Your task to perform on an android device: toggle wifi Image 0: 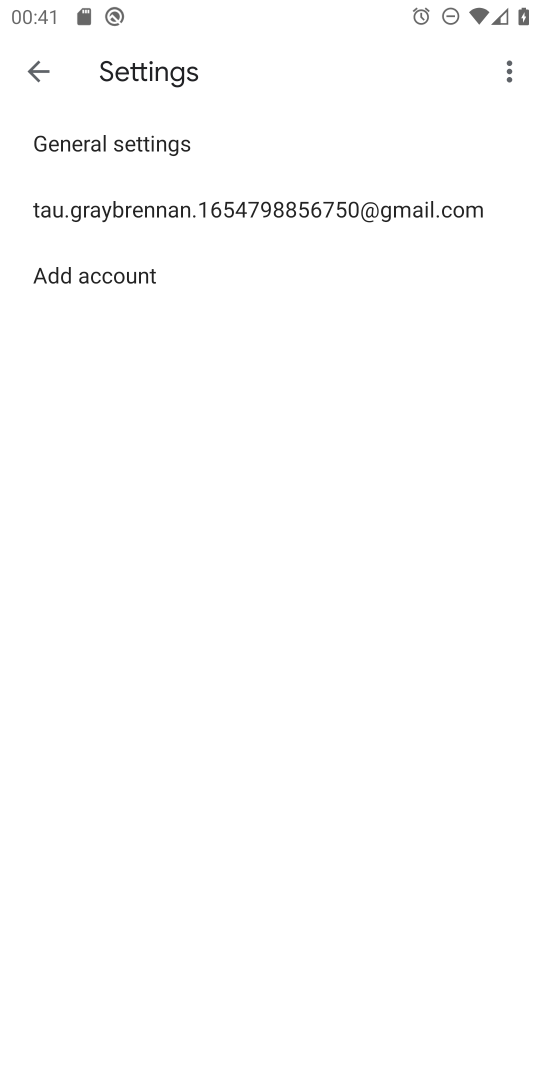
Step 0: press home button
Your task to perform on an android device: toggle wifi Image 1: 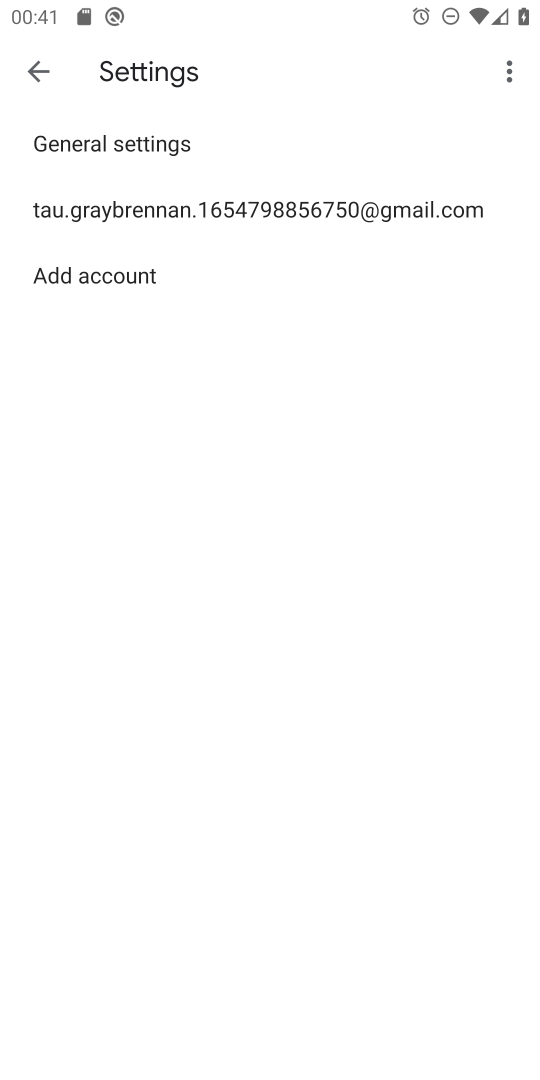
Step 1: press home button
Your task to perform on an android device: toggle wifi Image 2: 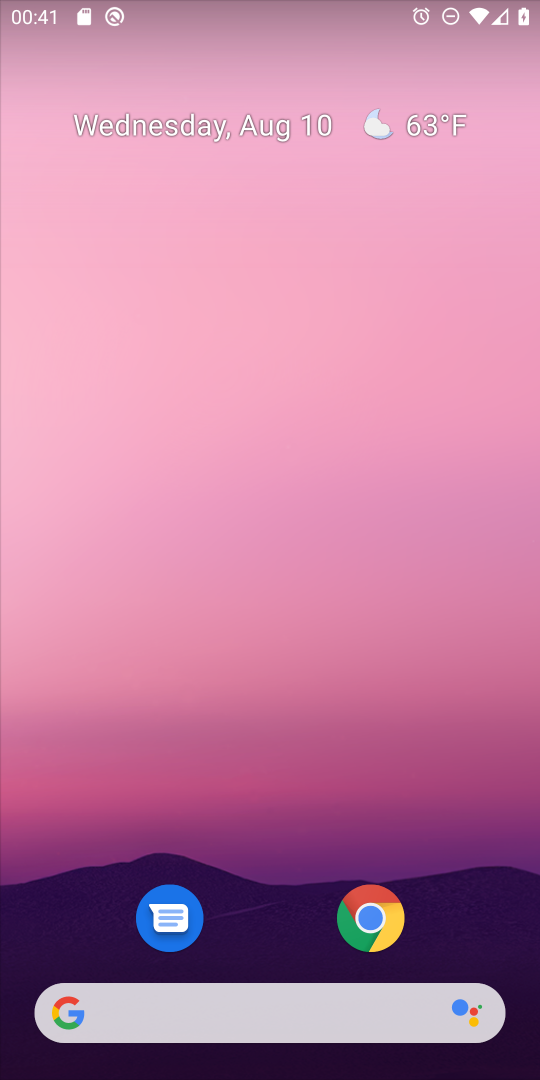
Step 2: drag from (253, 653) to (317, 108)
Your task to perform on an android device: toggle wifi Image 3: 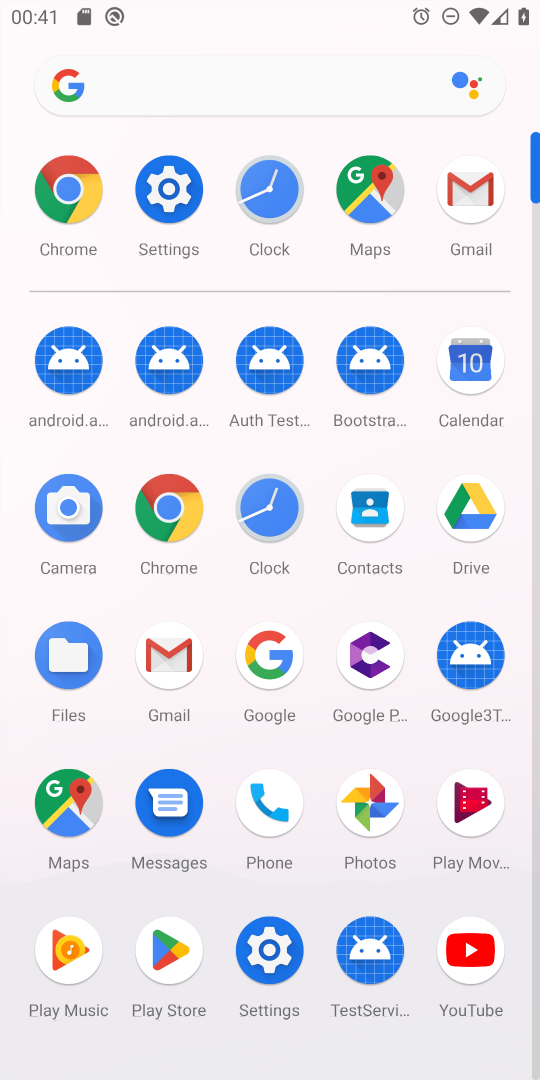
Step 3: click (273, 963)
Your task to perform on an android device: toggle wifi Image 4: 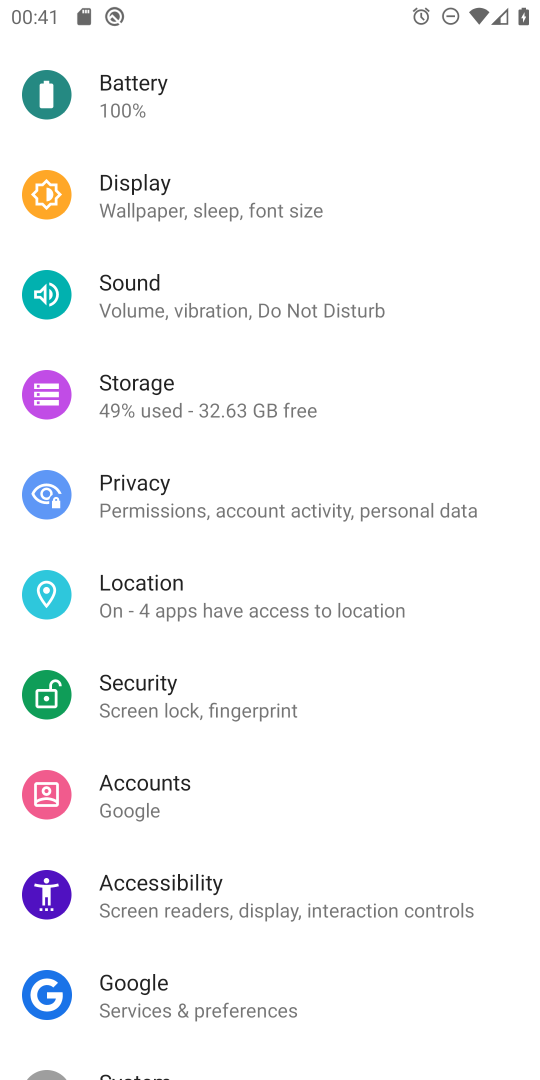
Step 4: drag from (316, 147) to (219, 752)
Your task to perform on an android device: toggle wifi Image 5: 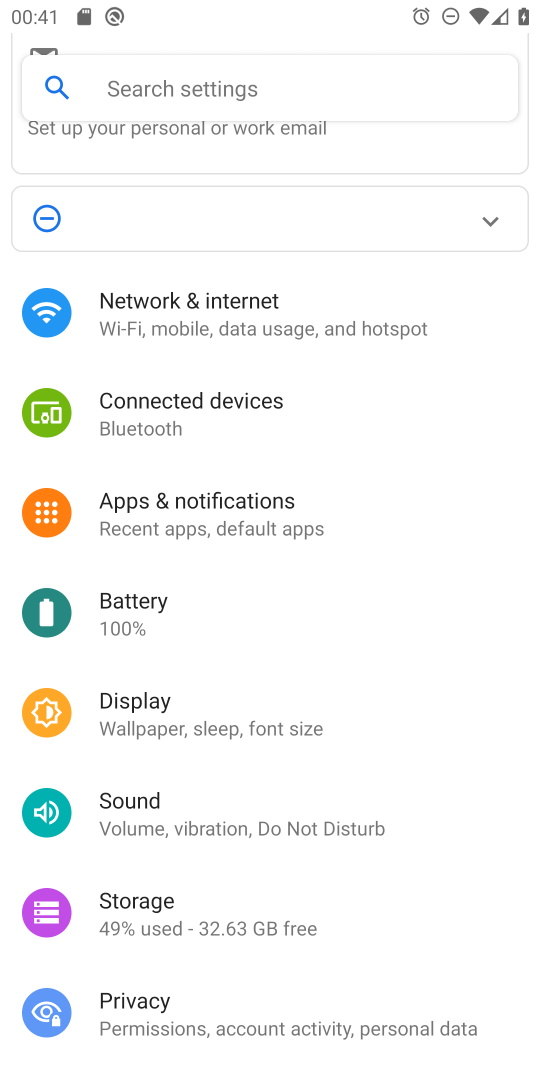
Step 5: click (208, 307)
Your task to perform on an android device: toggle wifi Image 6: 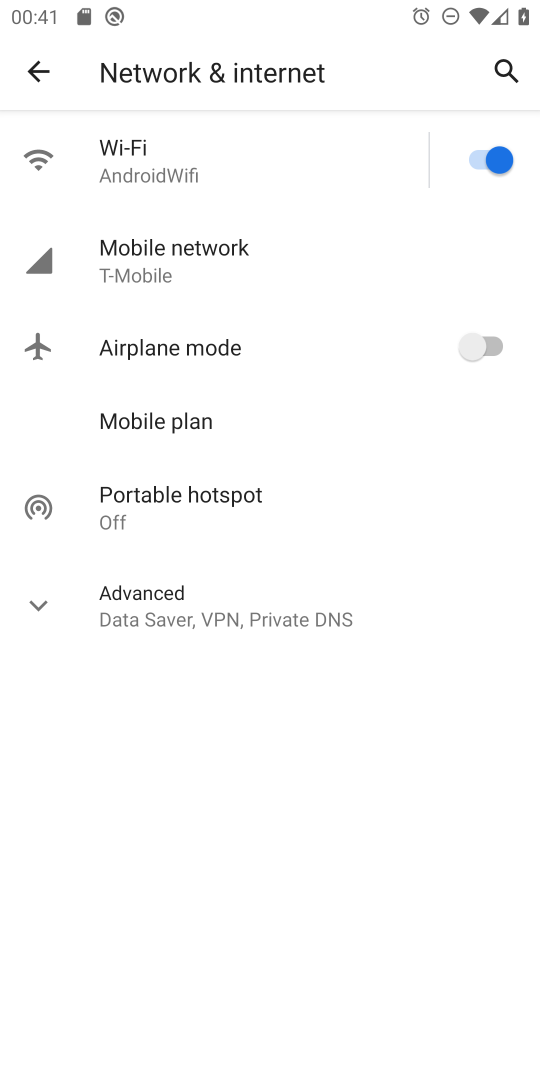
Step 6: click (244, 168)
Your task to perform on an android device: toggle wifi Image 7: 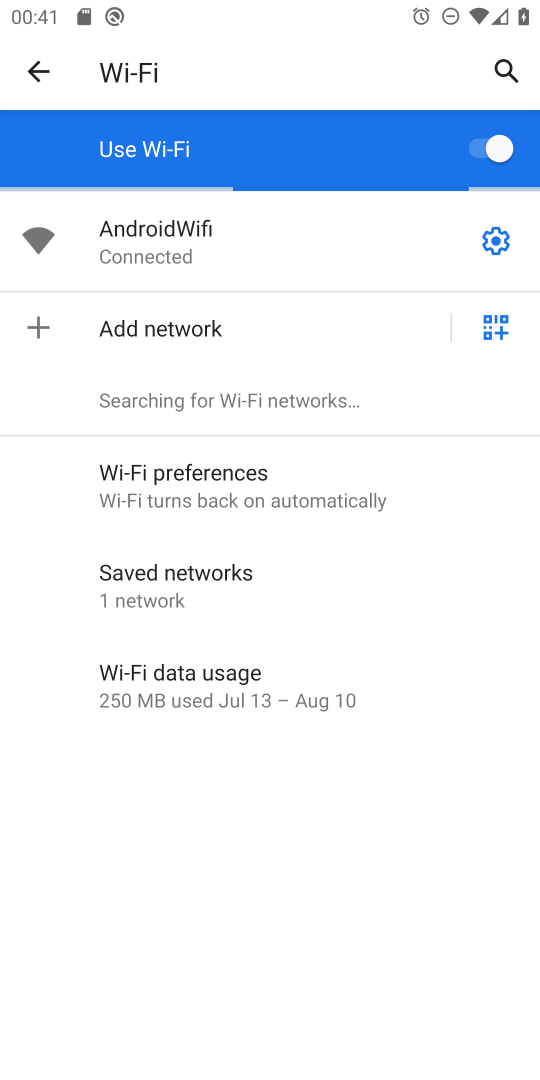
Step 7: click (512, 146)
Your task to perform on an android device: toggle wifi Image 8: 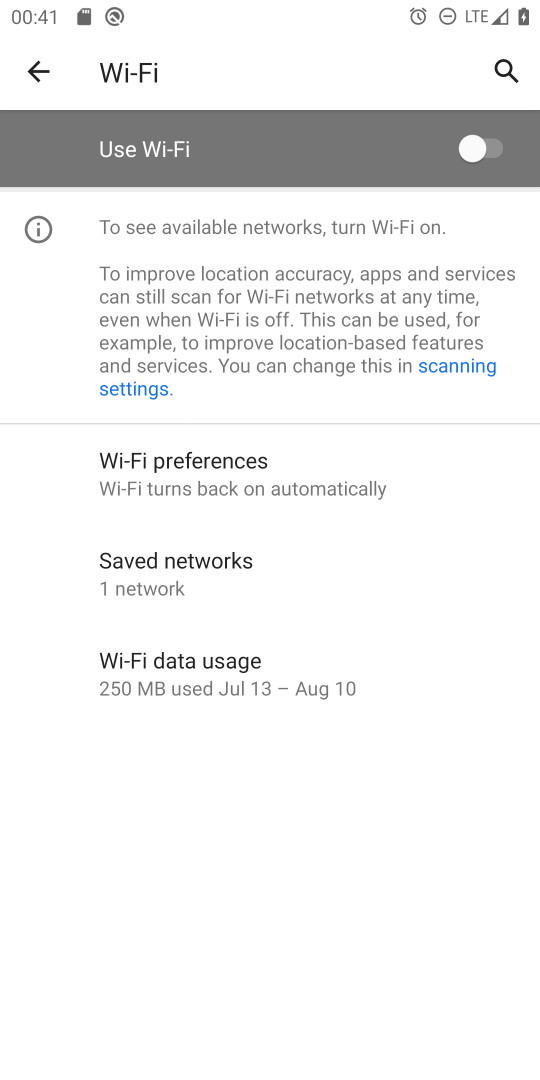
Step 8: task complete